Your task to perform on an android device: toggle show notifications on the lock screen Image 0: 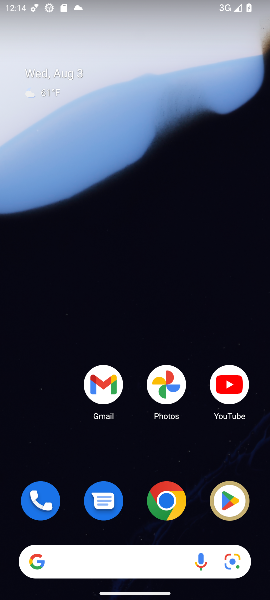
Step 0: drag from (141, 461) to (141, 166)
Your task to perform on an android device: toggle show notifications on the lock screen Image 1: 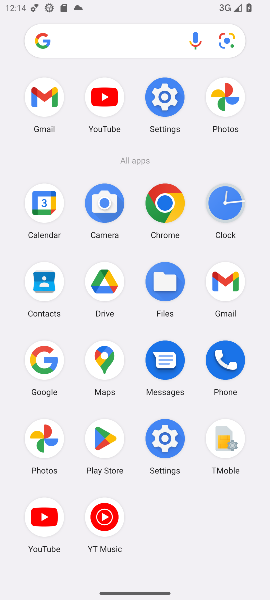
Step 1: click (160, 98)
Your task to perform on an android device: toggle show notifications on the lock screen Image 2: 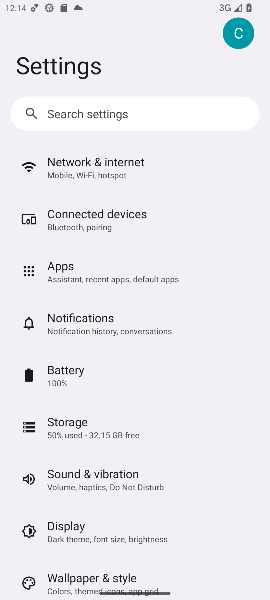
Step 2: click (87, 313)
Your task to perform on an android device: toggle show notifications on the lock screen Image 3: 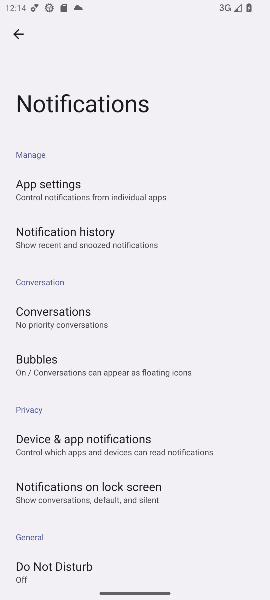
Step 3: click (77, 500)
Your task to perform on an android device: toggle show notifications on the lock screen Image 4: 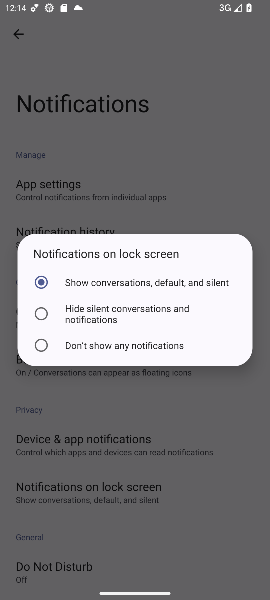
Step 4: click (136, 302)
Your task to perform on an android device: toggle show notifications on the lock screen Image 5: 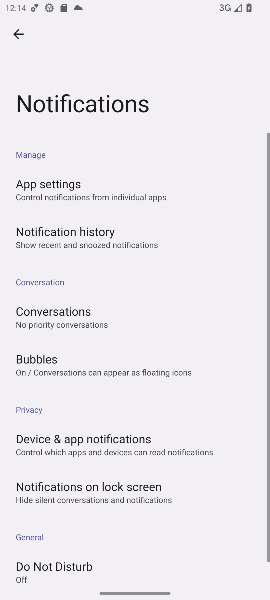
Step 5: task complete